Your task to perform on an android device: Open wifi settings Image 0: 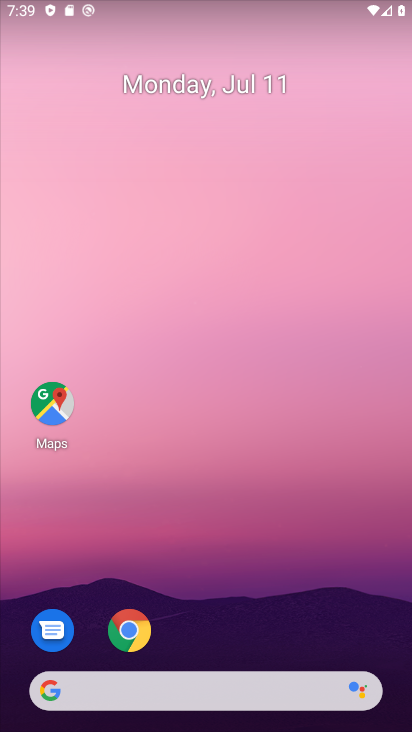
Step 0: drag from (226, 650) to (223, 58)
Your task to perform on an android device: Open wifi settings Image 1: 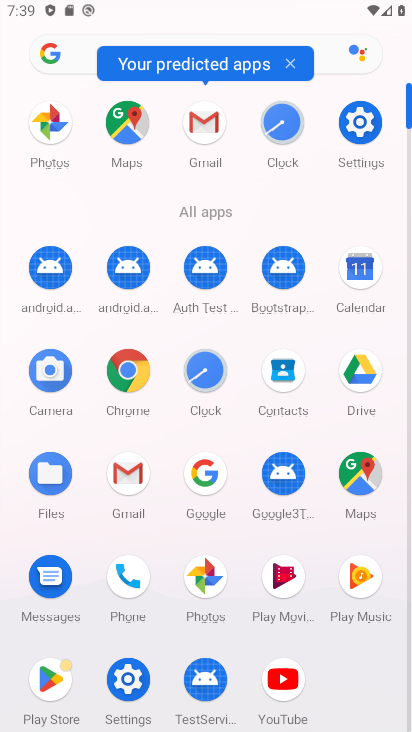
Step 1: click (358, 122)
Your task to perform on an android device: Open wifi settings Image 2: 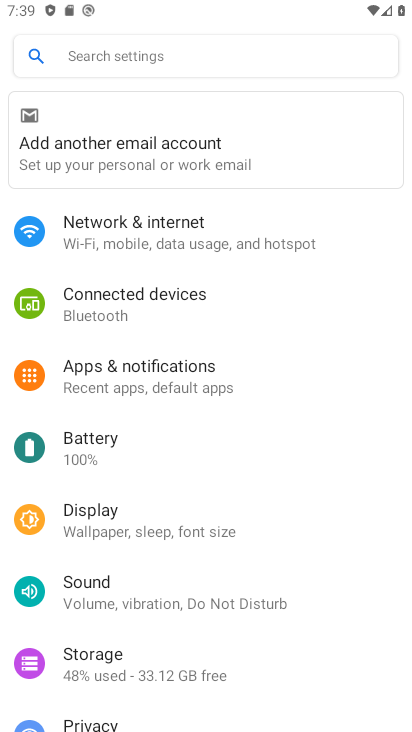
Step 2: click (158, 235)
Your task to perform on an android device: Open wifi settings Image 3: 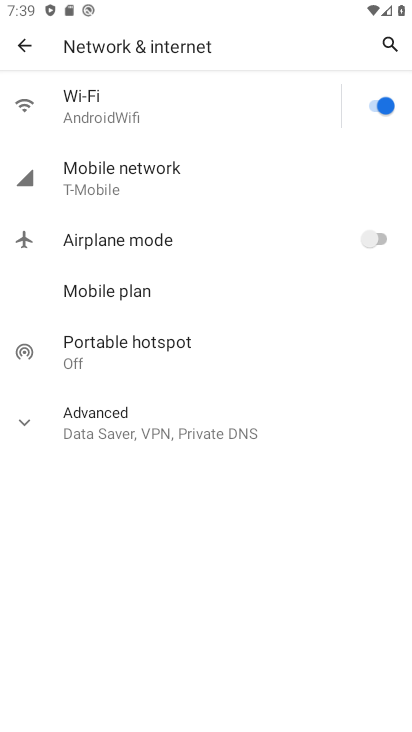
Step 3: click (173, 123)
Your task to perform on an android device: Open wifi settings Image 4: 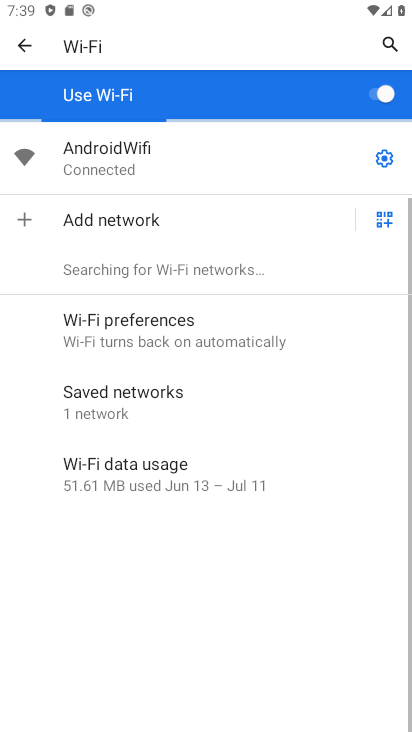
Step 4: task complete